Your task to perform on an android device: toggle show notifications on the lock screen Image 0: 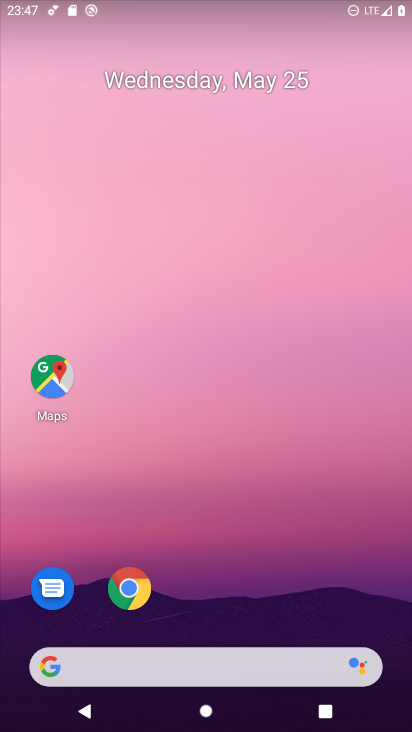
Step 0: drag from (251, 550) to (182, 80)
Your task to perform on an android device: toggle show notifications on the lock screen Image 1: 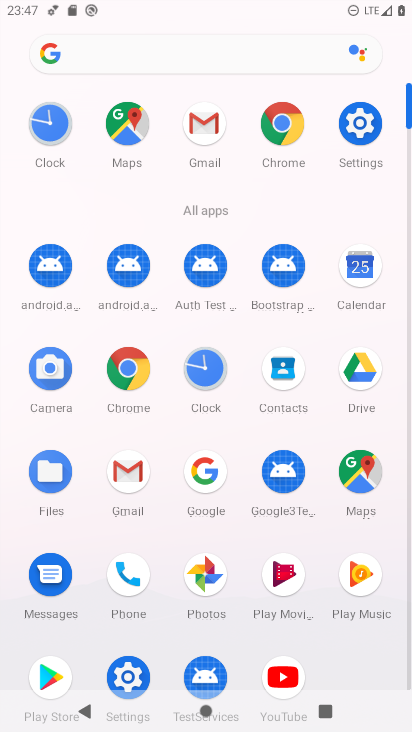
Step 1: click (365, 116)
Your task to perform on an android device: toggle show notifications on the lock screen Image 2: 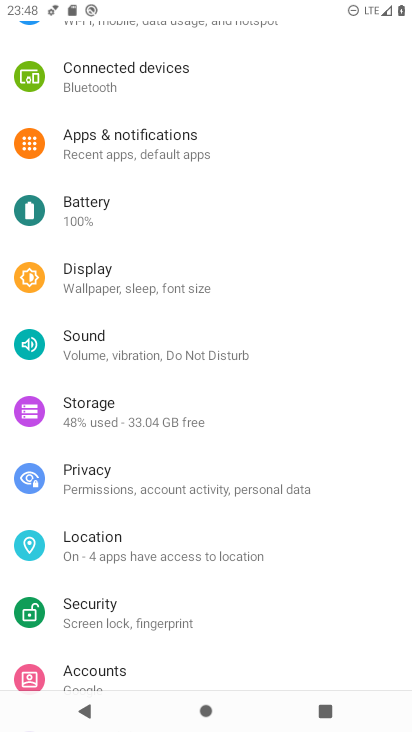
Step 2: click (124, 127)
Your task to perform on an android device: toggle show notifications on the lock screen Image 3: 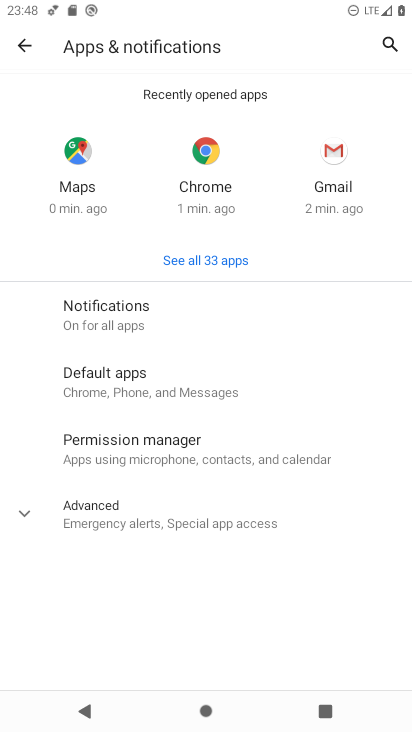
Step 3: click (95, 299)
Your task to perform on an android device: toggle show notifications on the lock screen Image 4: 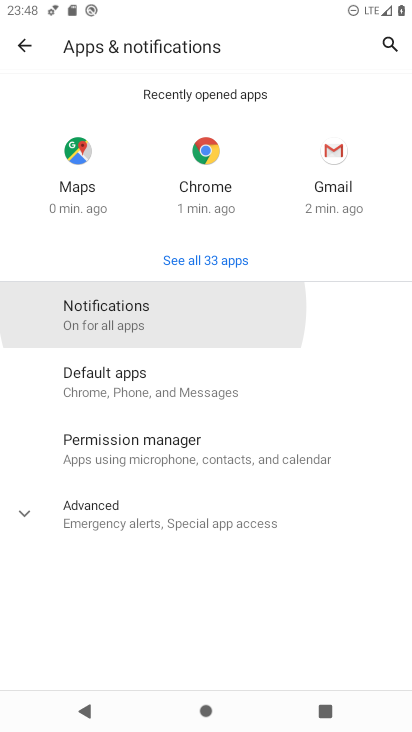
Step 4: click (95, 299)
Your task to perform on an android device: toggle show notifications on the lock screen Image 5: 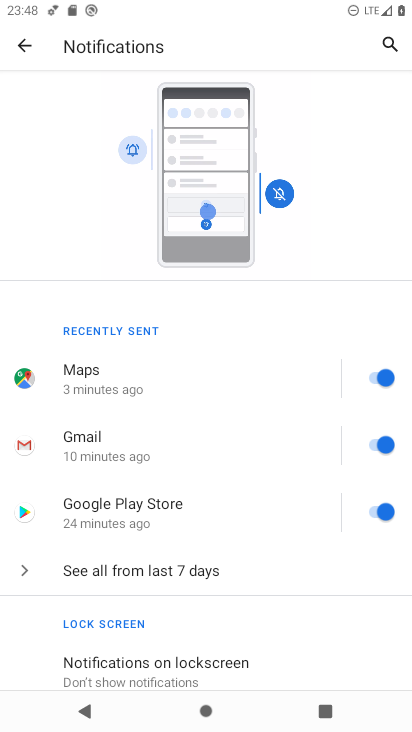
Step 5: click (179, 658)
Your task to perform on an android device: toggle show notifications on the lock screen Image 6: 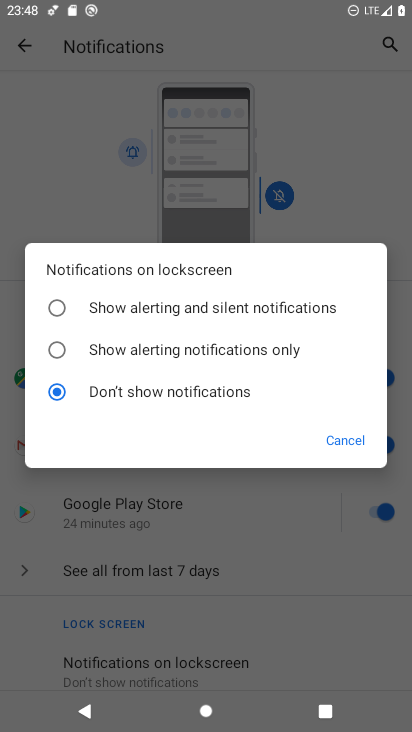
Step 6: click (52, 303)
Your task to perform on an android device: toggle show notifications on the lock screen Image 7: 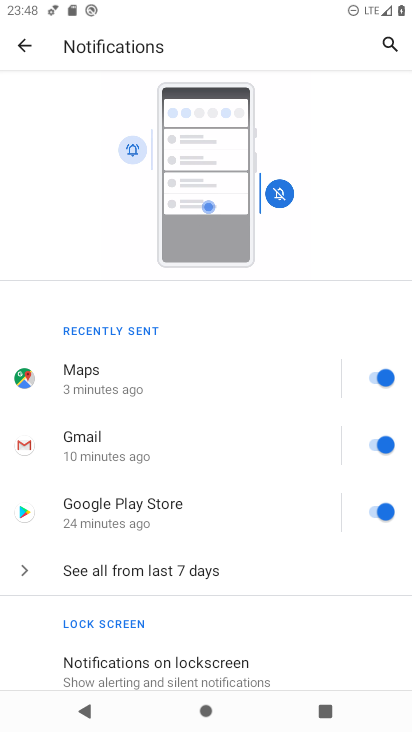
Step 7: task complete